Your task to perform on an android device: Show me the alarms in the clock app Image 0: 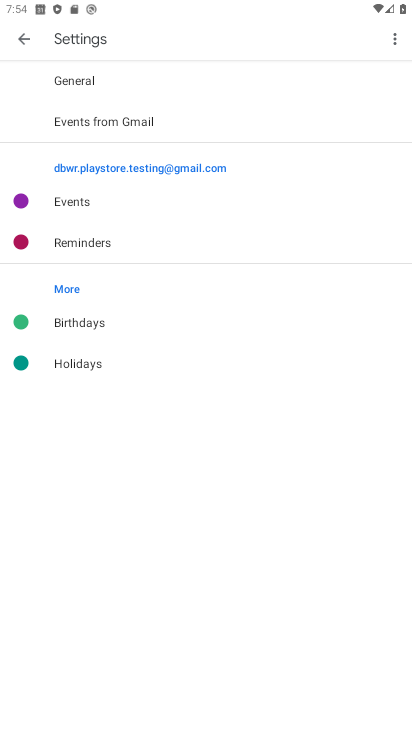
Step 0: task complete